Your task to perform on an android device: Add "logitech g pro" to the cart on ebay Image 0: 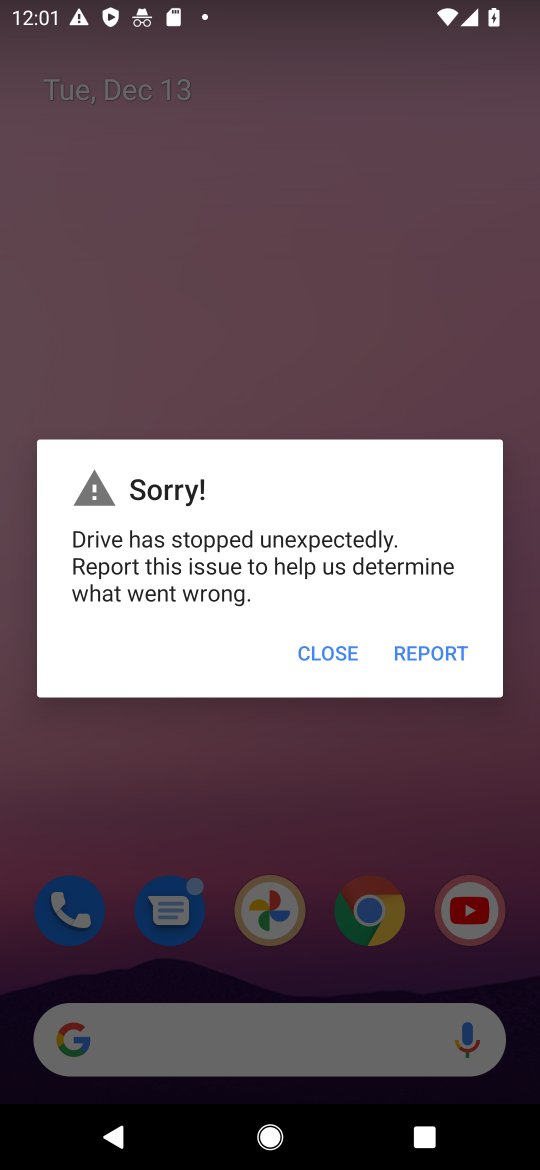
Step 0: click (354, 653)
Your task to perform on an android device: Add "logitech g pro" to the cart on ebay Image 1: 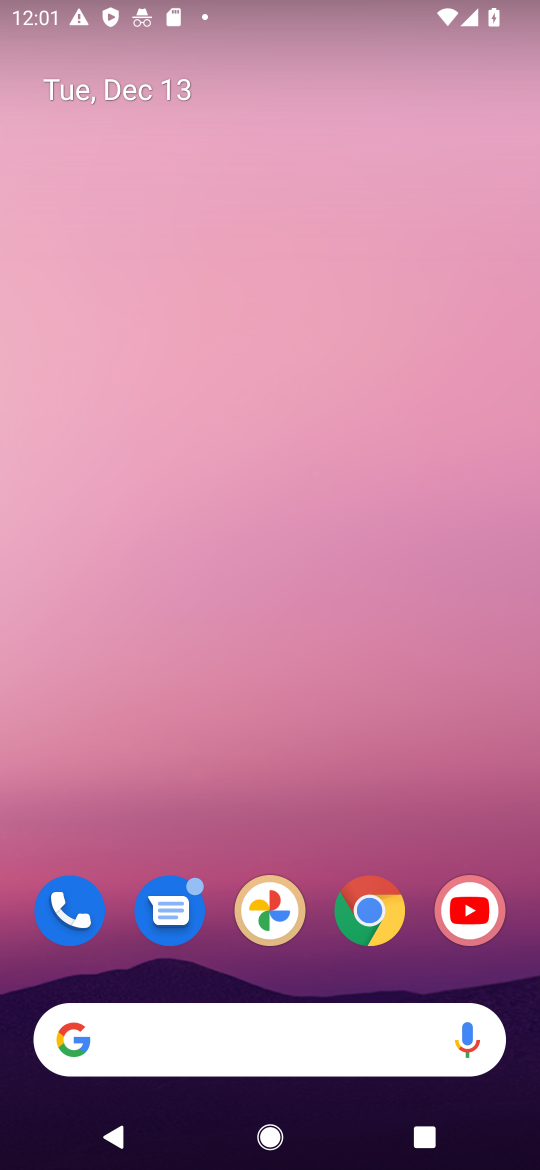
Step 1: click (361, 921)
Your task to perform on an android device: Add "logitech g pro" to the cart on ebay Image 2: 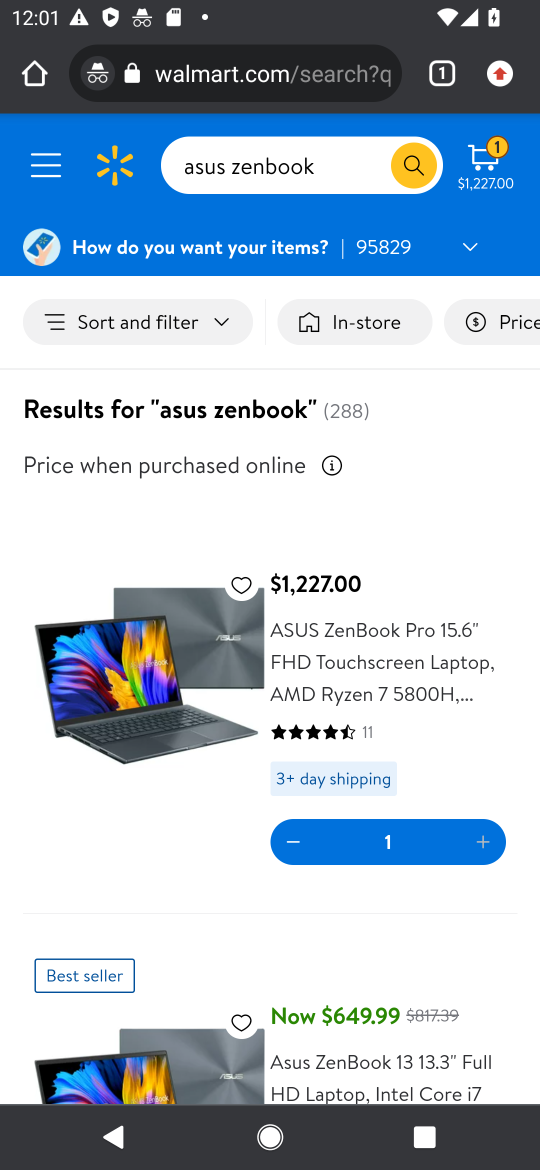
Step 2: click (230, 76)
Your task to perform on an android device: Add "logitech g pro" to the cart on ebay Image 3: 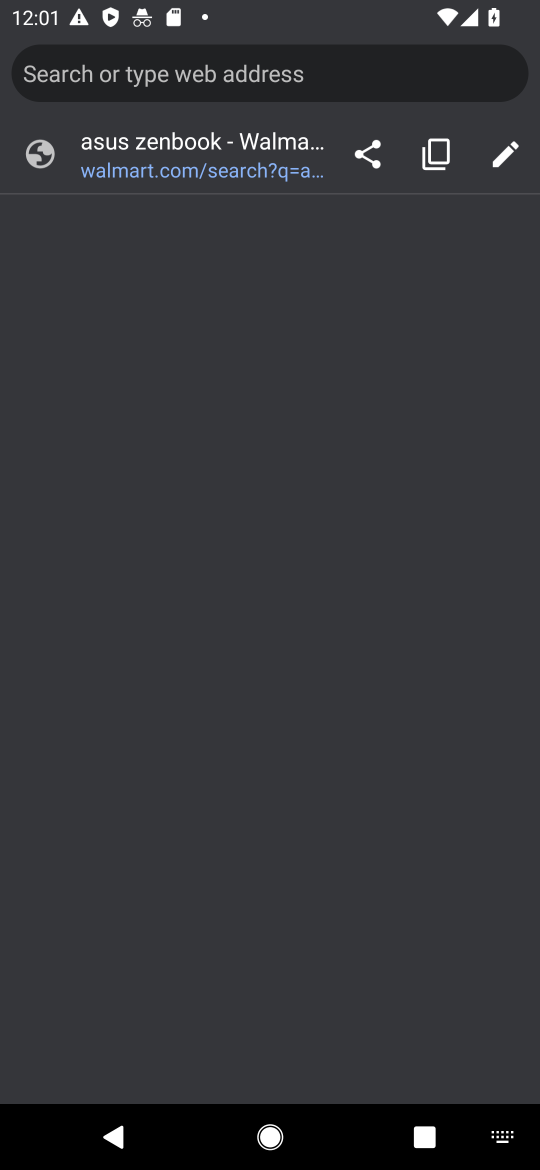
Step 3: type "EBAY"
Your task to perform on an android device: Add "logitech g pro" to the cart on ebay Image 4: 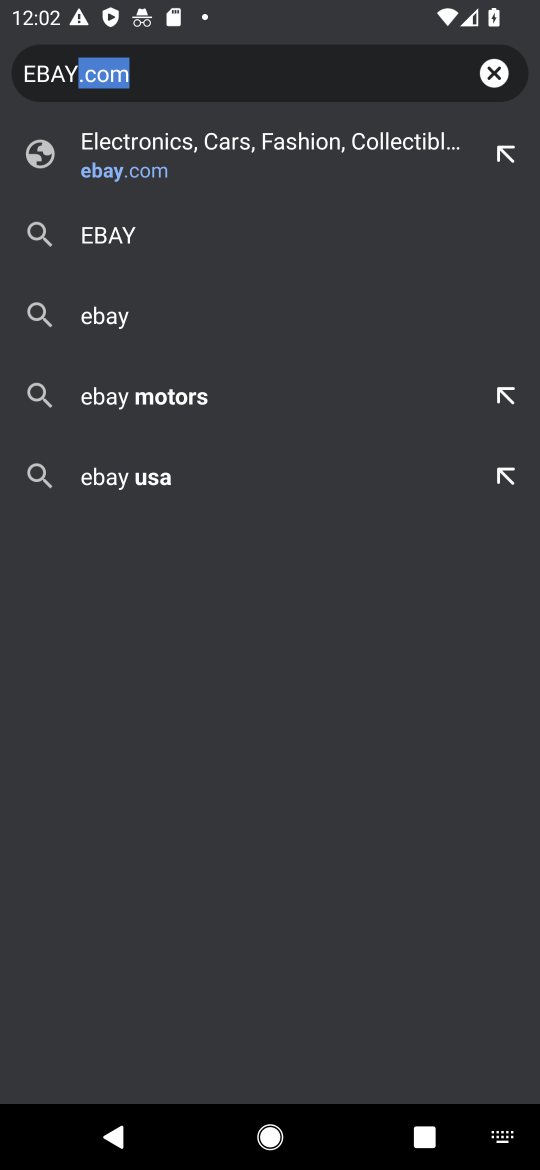
Step 4: click (153, 157)
Your task to perform on an android device: Add "logitech g pro" to the cart on ebay Image 5: 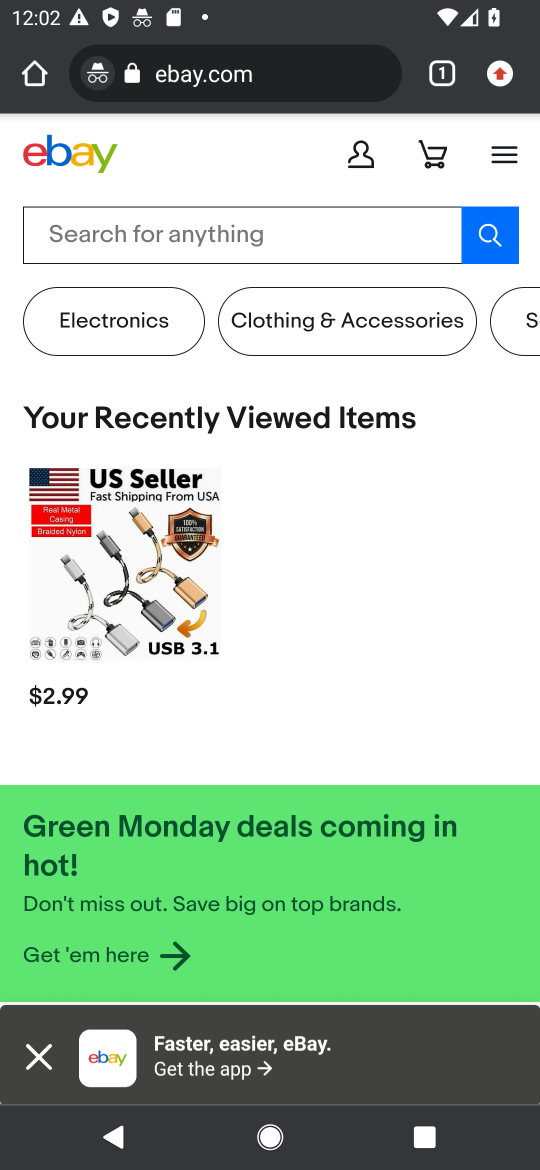
Step 5: click (245, 234)
Your task to perform on an android device: Add "logitech g pro" to the cart on ebay Image 6: 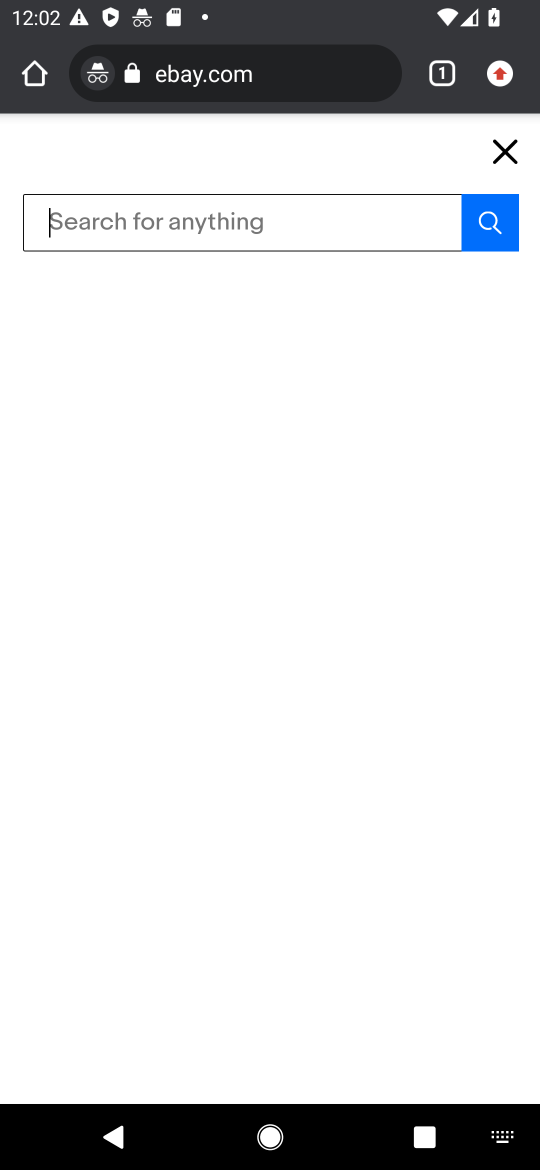
Step 6: type "logitech g pro"
Your task to perform on an android device: Add "logitech g pro" to the cart on ebay Image 7: 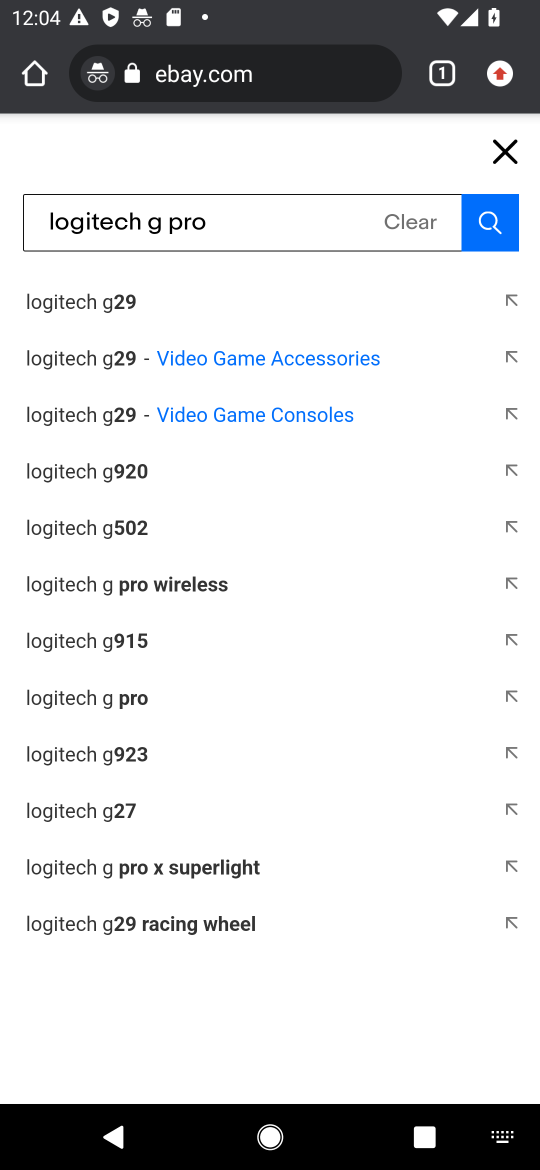
Step 7: click (109, 304)
Your task to perform on an android device: Add "logitech g pro" to the cart on ebay Image 8: 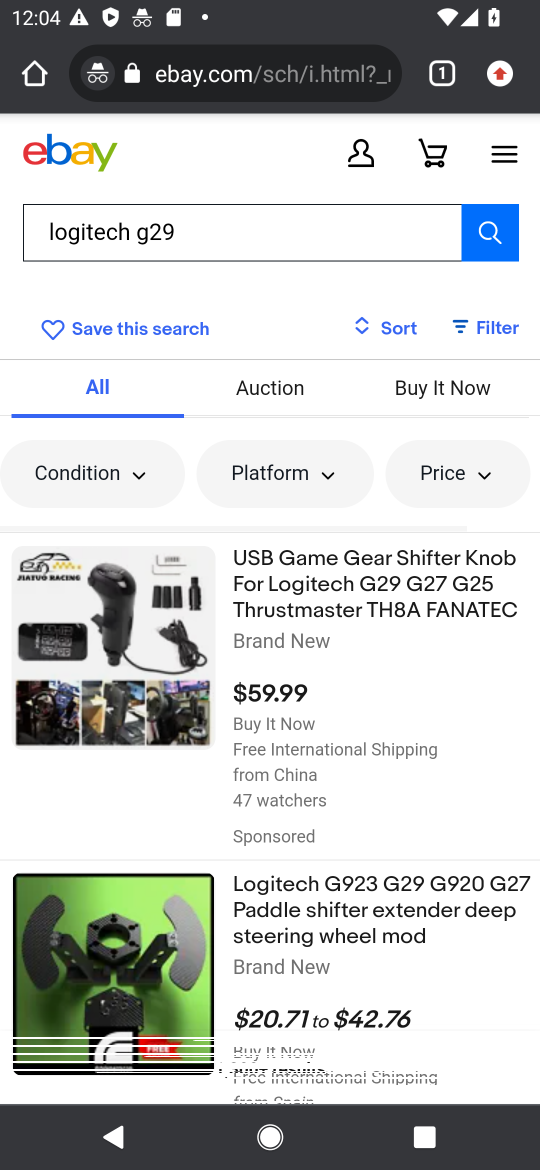
Step 8: click (393, 667)
Your task to perform on an android device: Add "logitech g pro" to the cart on ebay Image 9: 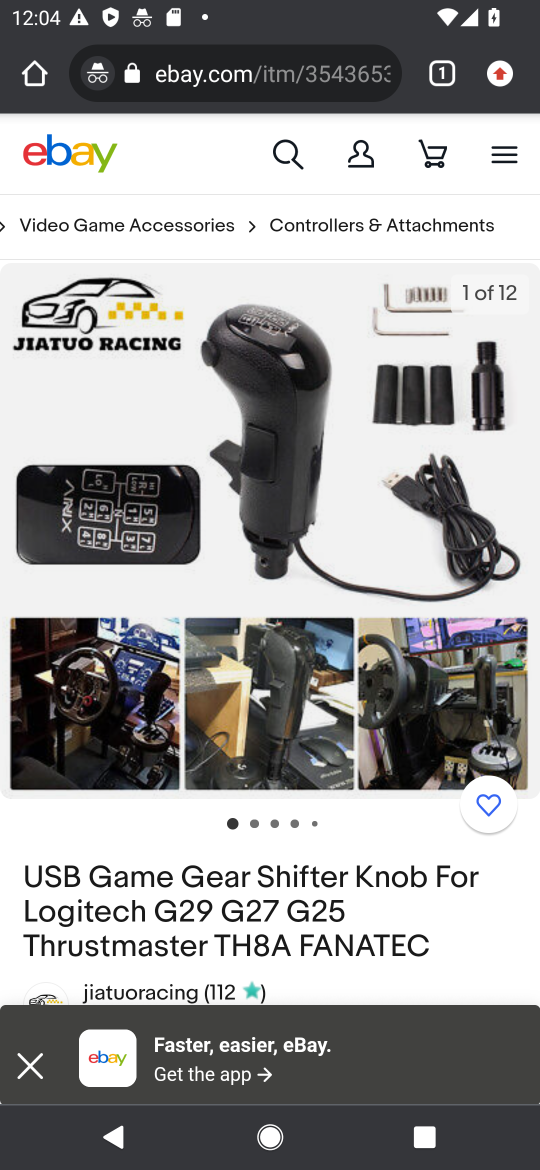
Step 9: drag from (398, 959) to (293, 332)
Your task to perform on an android device: Add "logitech g pro" to the cart on ebay Image 10: 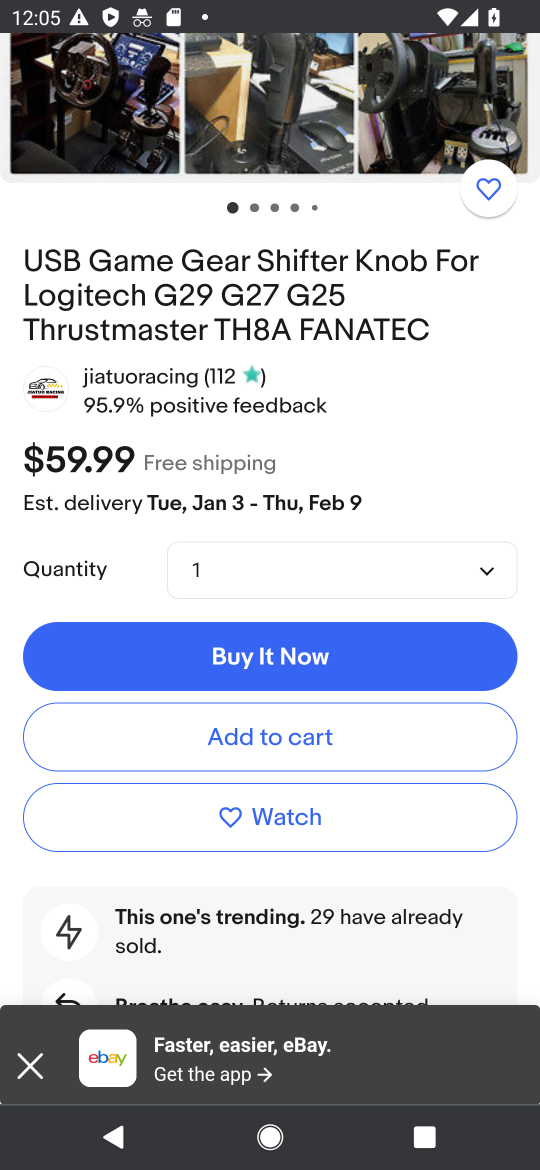
Step 10: click (304, 721)
Your task to perform on an android device: Add "logitech g pro" to the cart on ebay Image 11: 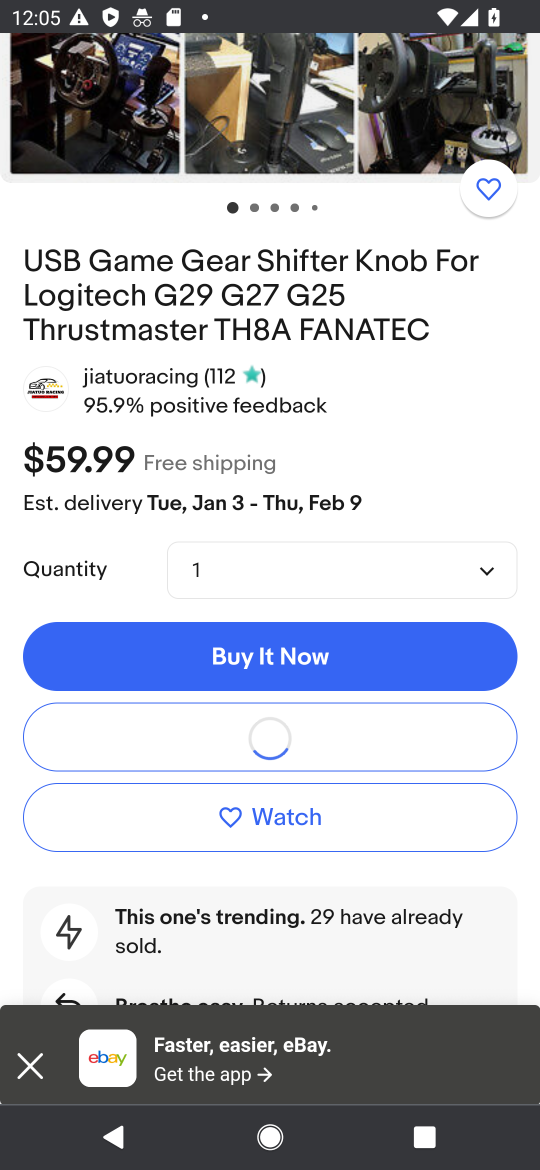
Step 11: task complete